Your task to perform on an android device: set the stopwatch Image 0: 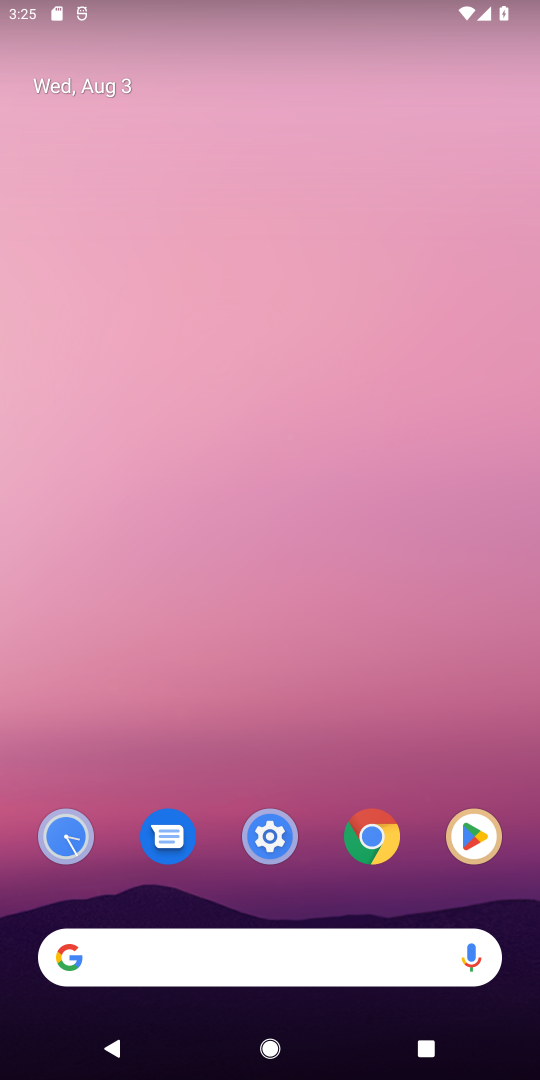
Step 0: drag from (226, 882) to (330, 74)
Your task to perform on an android device: set the stopwatch Image 1: 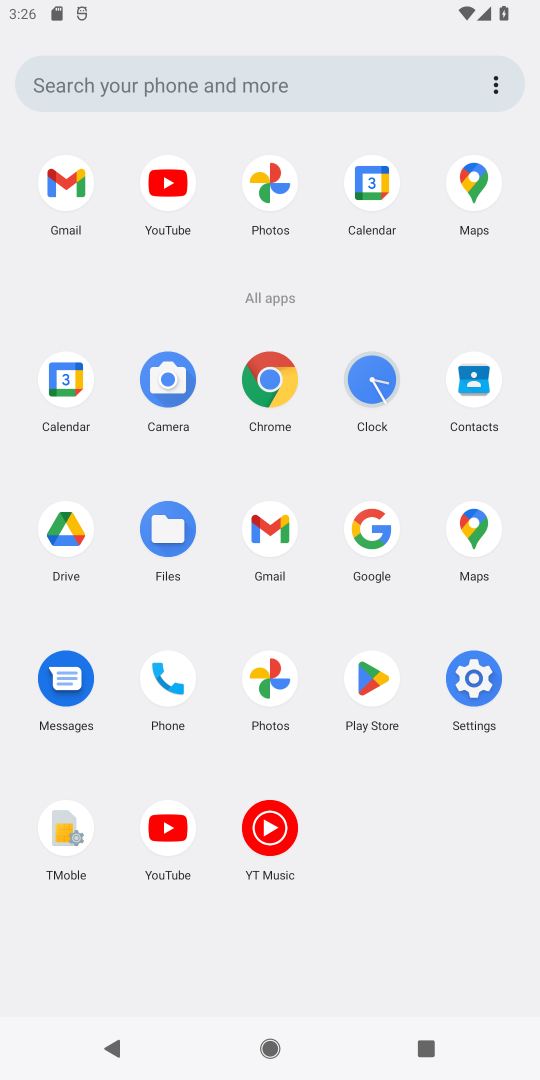
Step 1: click (368, 388)
Your task to perform on an android device: set the stopwatch Image 2: 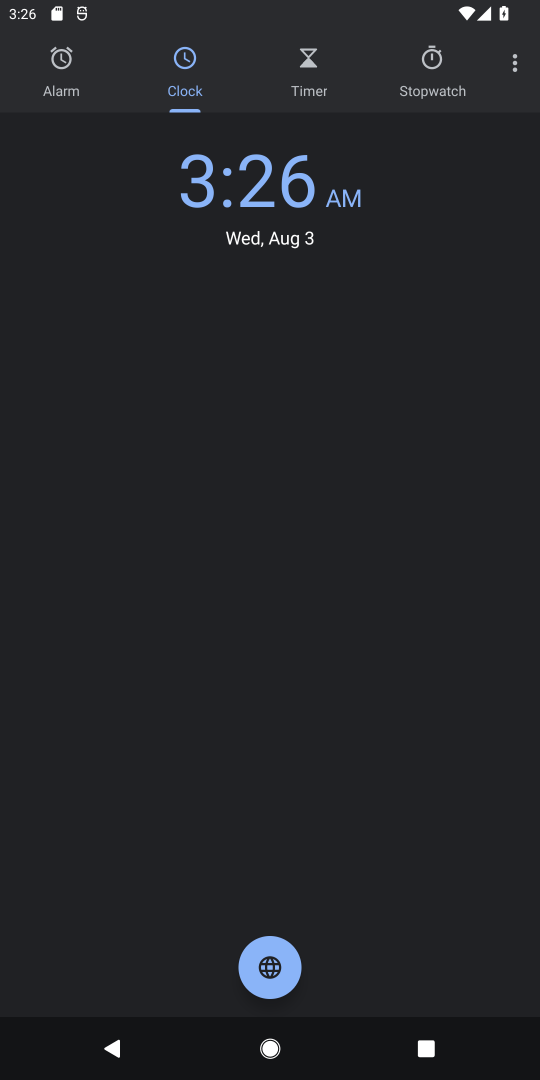
Step 2: click (430, 68)
Your task to perform on an android device: set the stopwatch Image 3: 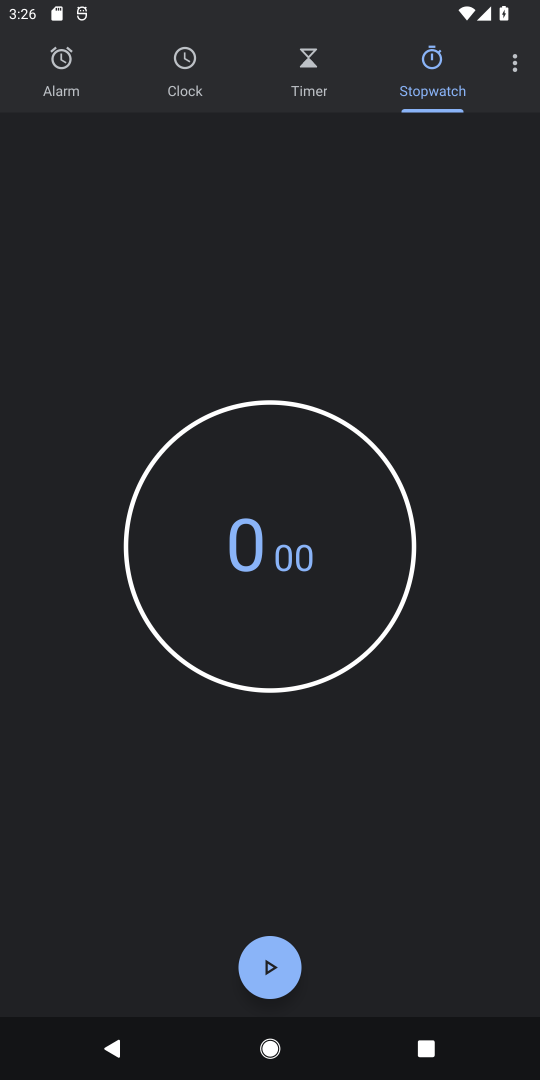
Step 3: click (269, 977)
Your task to perform on an android device: set the stopwatch Image 4: 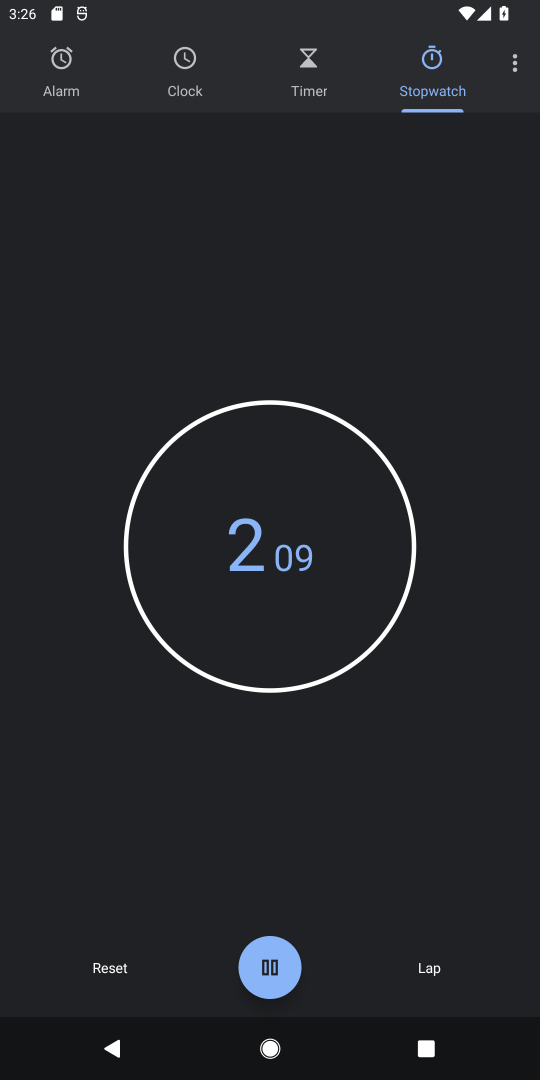
Step 4: task complete